Your task to perform on an android device: What is the recent news? Image 0: 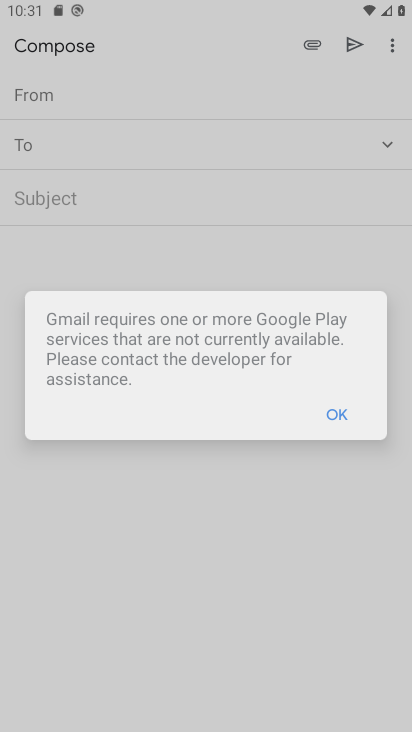
Step 0: drag from (261, 601) to (195, 216)
Your task to perform on an android device: What is the recent news? Image 1: 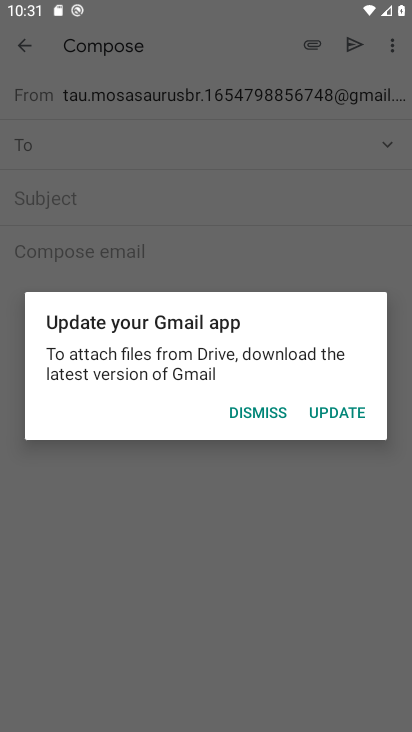
Step 1: click (257, 401)
Your task to perform on an android device: What is the recent news? Image 2: 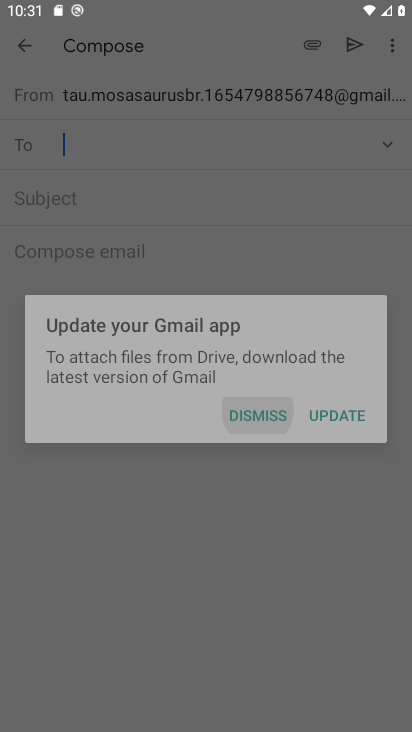
Step 2: click (253, 402)
Your task to perform on an android device: What is the recent news? Image 3: 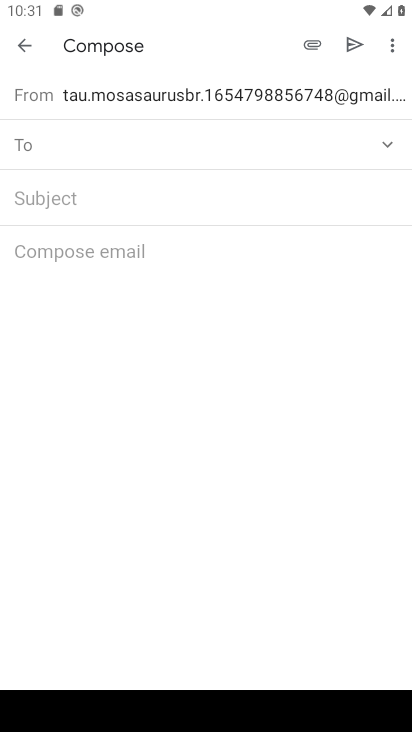
Step 3: click (39, 45)
Your task to perform on an android device: What is the recent news? Image 4: 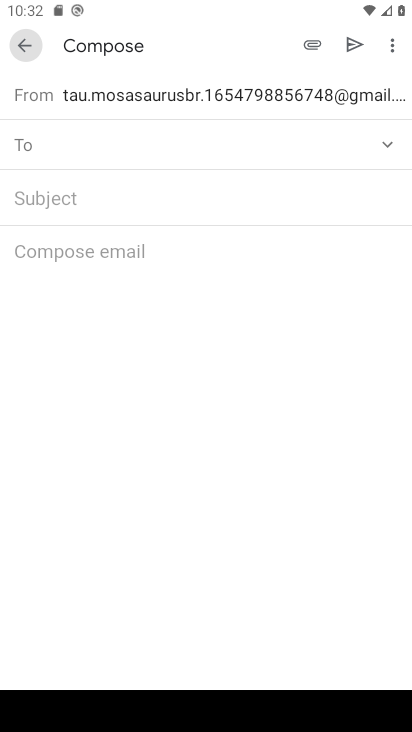
Step 4: click (38, 45)
Your task to perform on an android device: What is the recent news? Image 5: 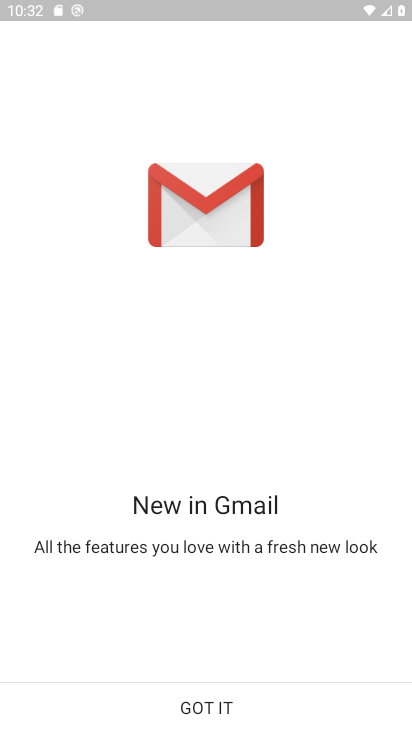
Step 5: press home button
Your task to perform on an android device: What is the recent news? Image 6: 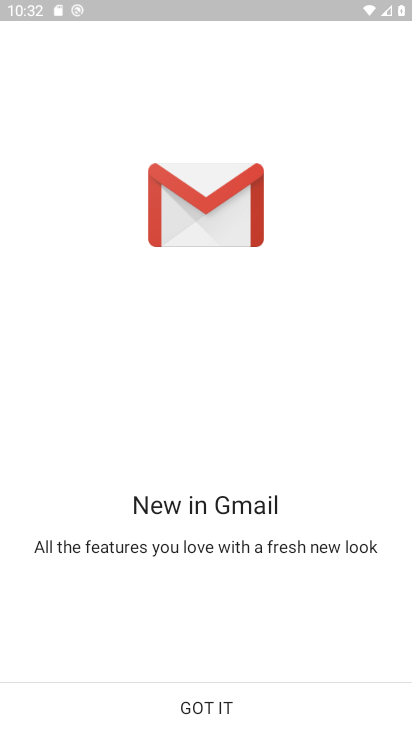
Step 6: press home button
Your task to perform on an android device: What is the recent news? Image 7: 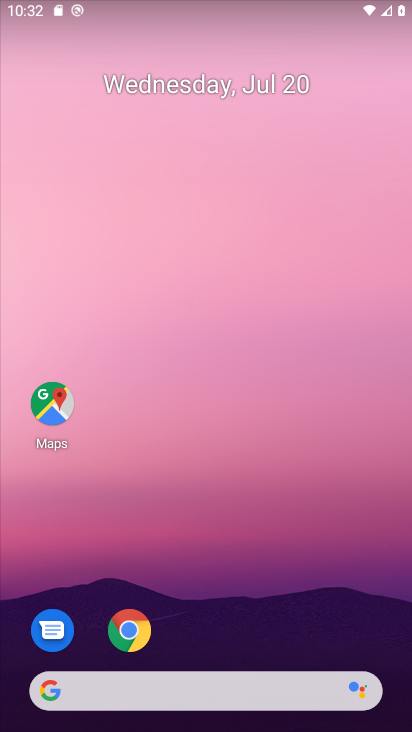
Step 7: drag from (237, 640) to (198, 143)
Your task to perform on an android device: What is the recent news? Image 8: 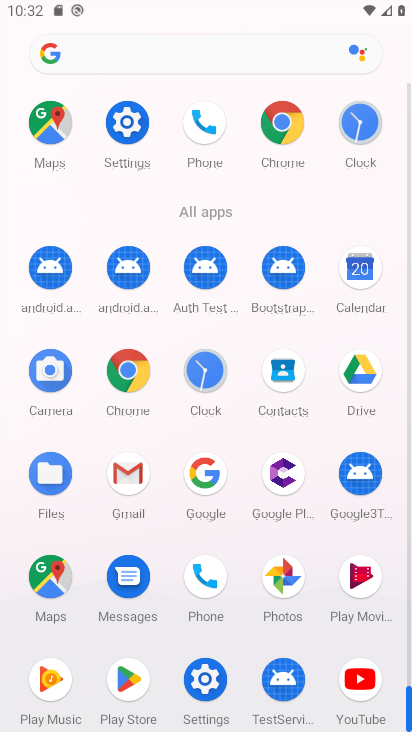
Step 8: click (284, 134)
Your task to perform on an android device: What is the recent news? Image 9: 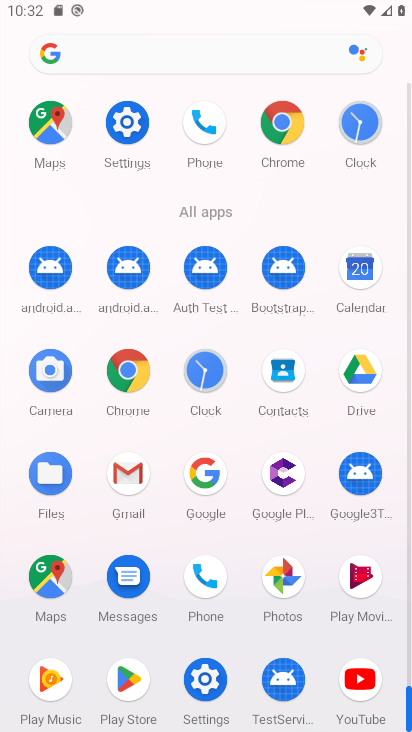
Step 9: click (284, 134)
Your task to perform on an android device: What is the recent news? Image 10: 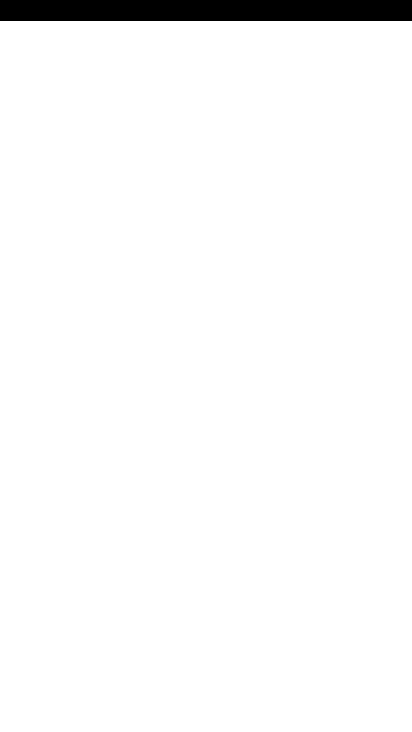
Step 10: click (284, 134)
Your task to perform on an android device: What is the recent news? Image 11: 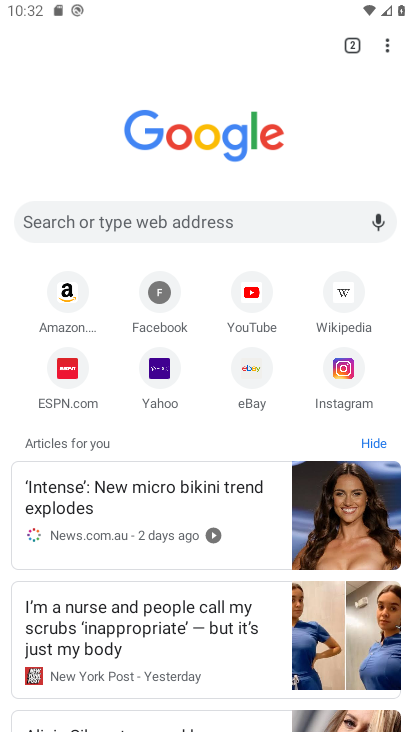
Step 11: task complete